Your task to perform on an android device: change the clock display to show seconds Image 0: 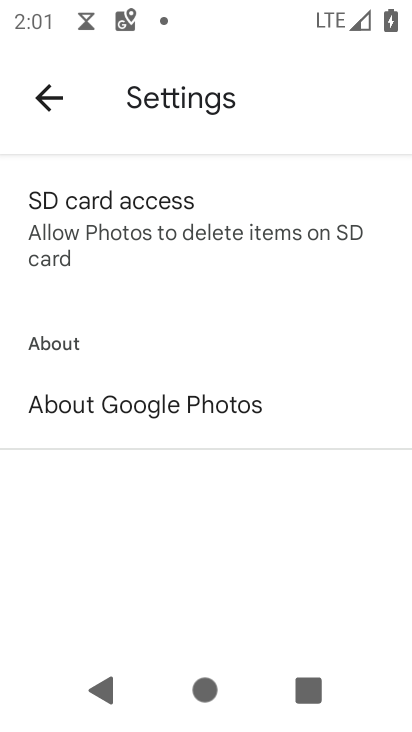
Step 0: press home button
Your task to perform on an android device: change the clock display to show seconds Image 1: 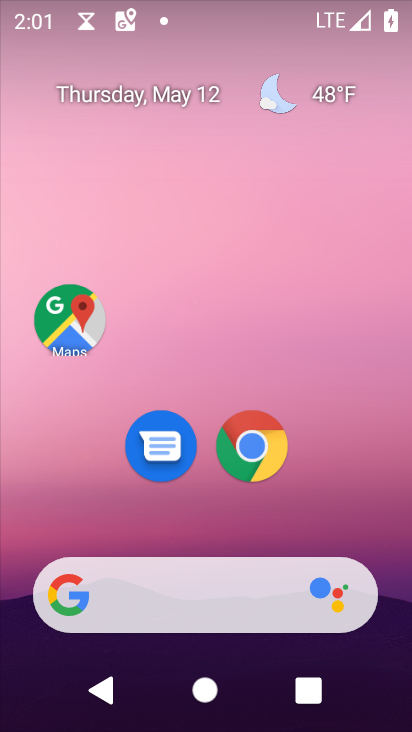
Step 1: drag from (306, 526) to (316, 4)
Your task to perform on an android device: change the clock display to show seconds Image 2: 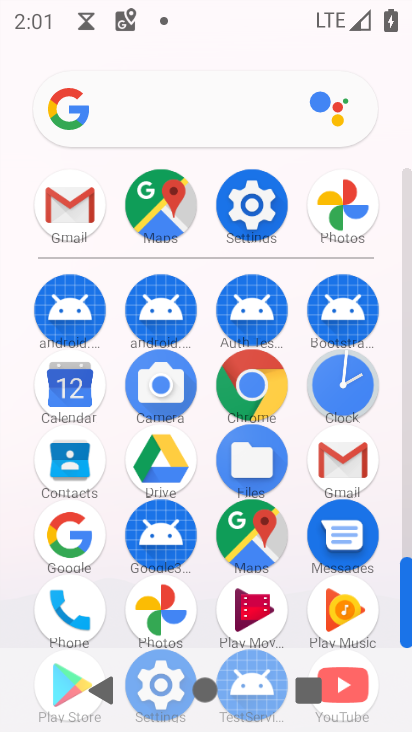
Step 2: click (362, 400)
Your task to perform on an android device: change the clock display to show seconds Image 3: 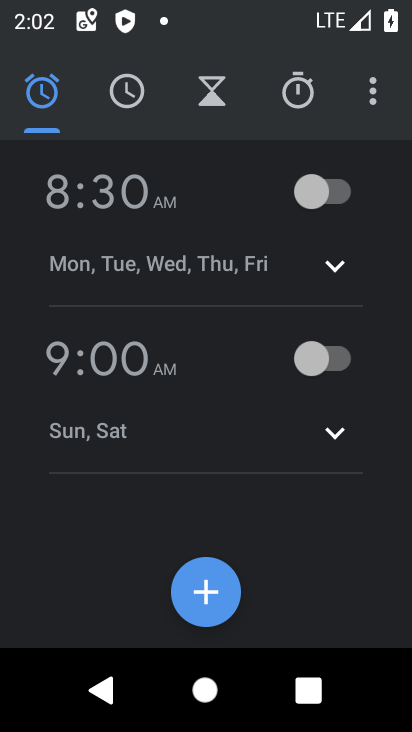
Step 3: click (386, 91)
Your task to perform on an android device: change the clock display to show seconds Image 4: 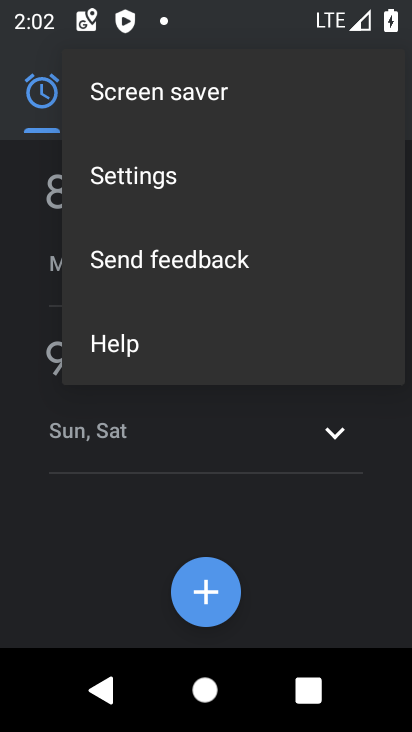
Step 4: click (149, 181)
Your task to perform on an android device: change the clock display to show seconds Image 5: 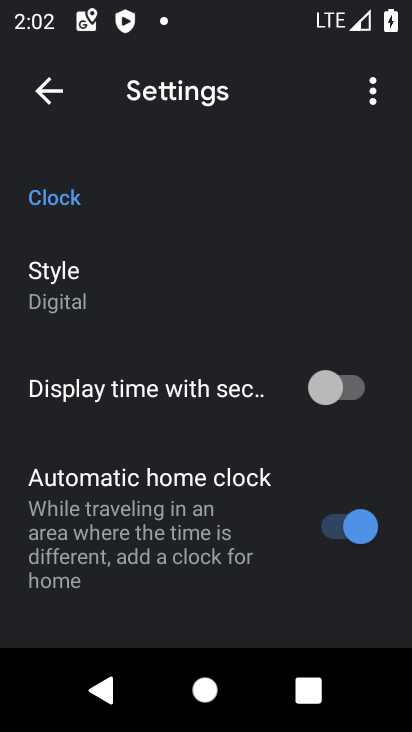
Step 5: click (65, 288)
Your task to perform on an android device: change the clock display to show seconds Image 6: 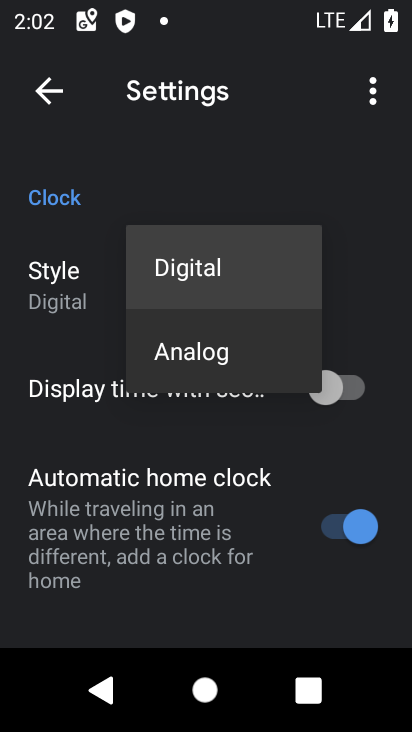
Step 6: click (360, 236)
Your task to perform on an android device: change the clock display to show seconds Image 7: 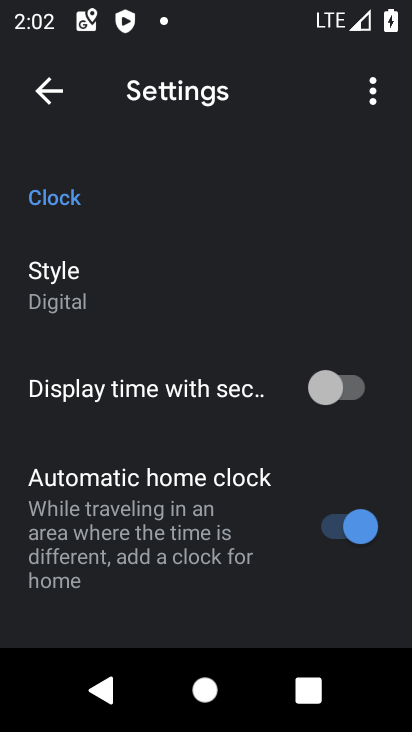
Step 7: click (363, 388)
Your task to perform on an android device: change the clock display to show seconds Image 8: 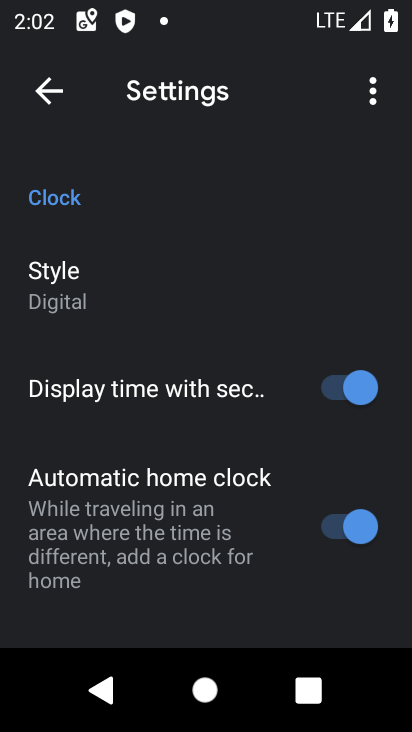
Step 8: task complete